Your task to perform on an android device: clear all cookies in the chrome app Image 0: 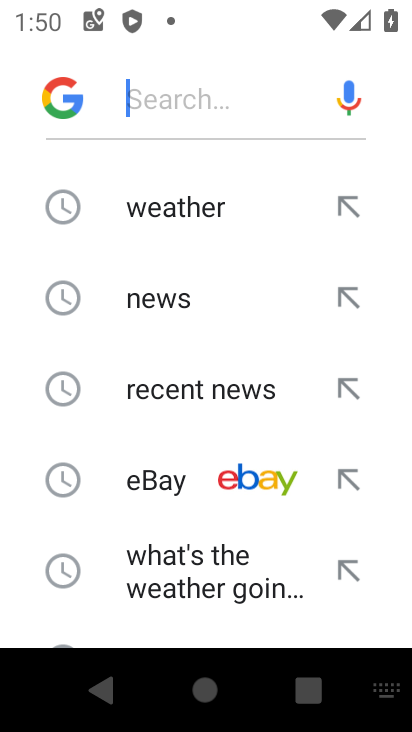
Step 0: press home button
Your task to perform on an android device: clear all cookies in the chrome app Image 1: 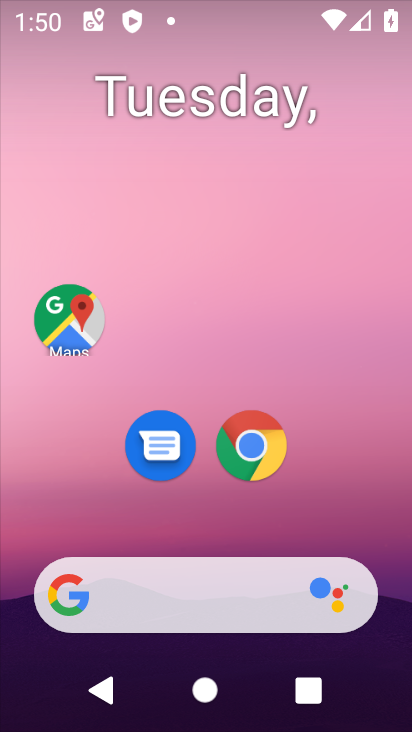
Step 1: drag from (303, 331) to (241, 11)
Your task to perform on an android device: clear all cookies in the chrome app Image 2: 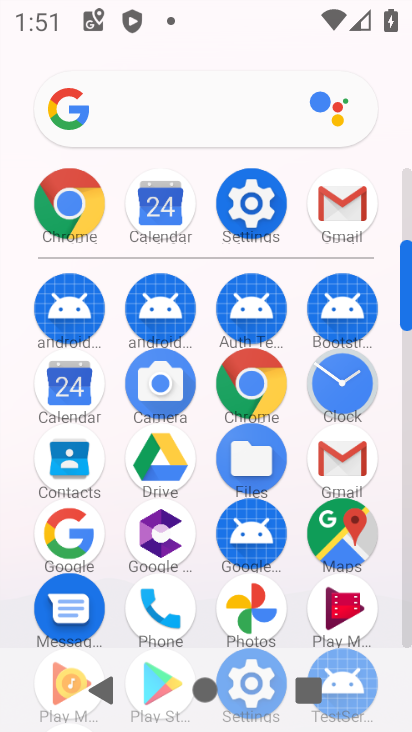
Step 2: click (90, 214)
Your task to perform on an android device: clear all cookies in the chrome app Image 3: 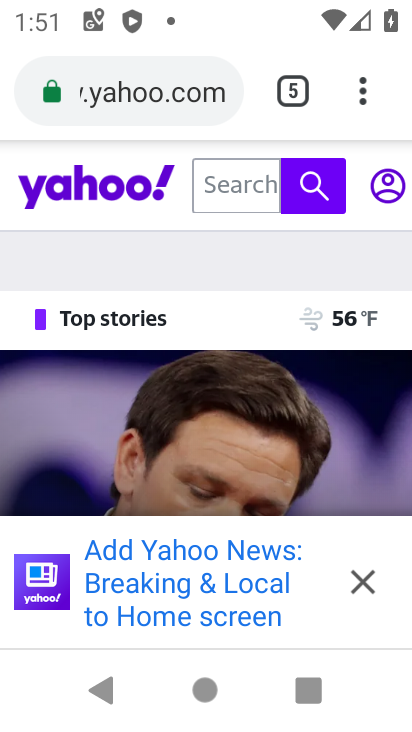
Step 3: drag from (374, 103) to (139, 465)
Your task to perform on an android device: clear all cookies in the chrome app Image 4: 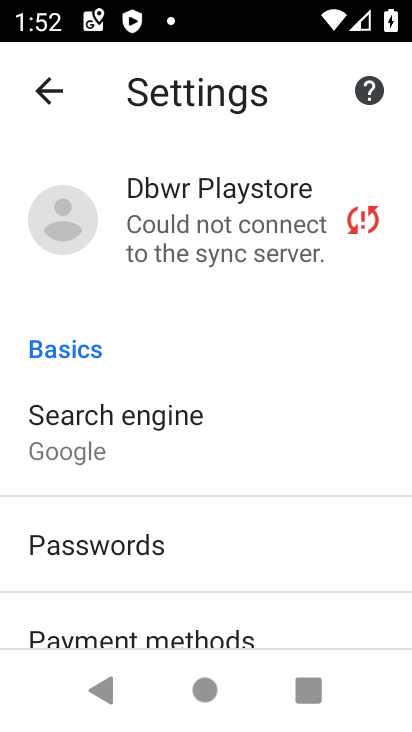
Step 4: drag from (165, 571) to (65, 216)
Your task to perform on an android device: clear all cookies in the chrome app Image 5: 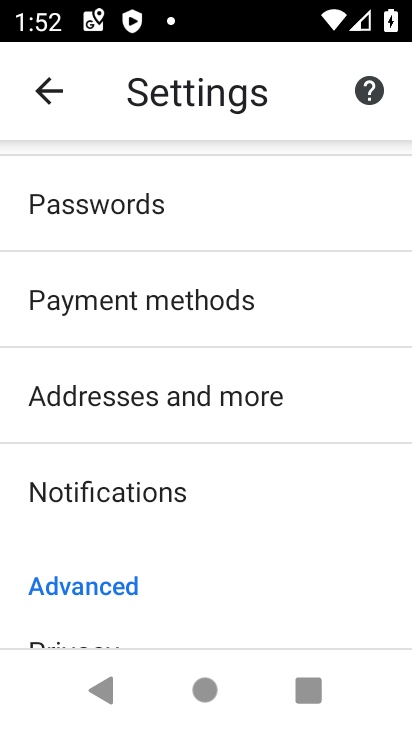
Step 5: drag from (281, 586) to (191, 221)
Your task to perform on an android device: clear all cookies in the chrome app Image 6: 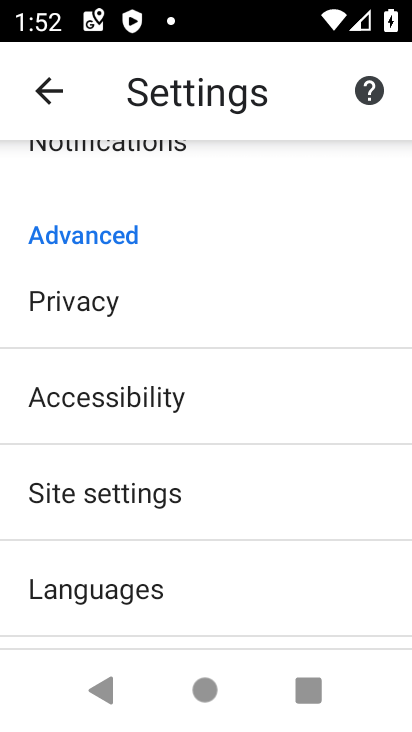
Step 6: drag from (98, 277) to (201, 649)
Your task to perform on an android device: clear all cookies in the chrome app Image 7: 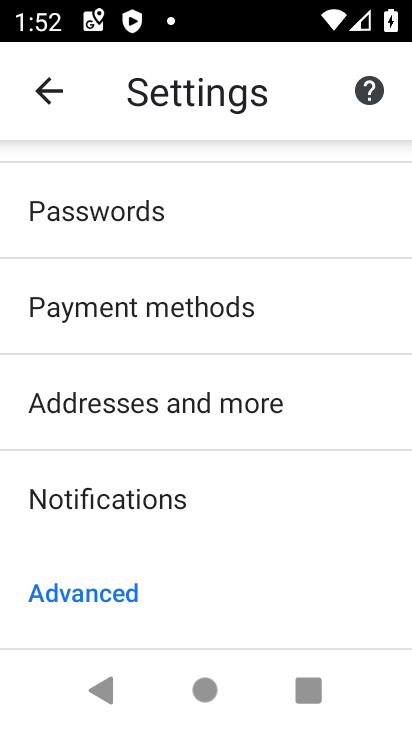
Step 7: drag from (101, 326) to (216, 651)
Your task to perform on an android device: clear all cookies in the chrome app Image 8: 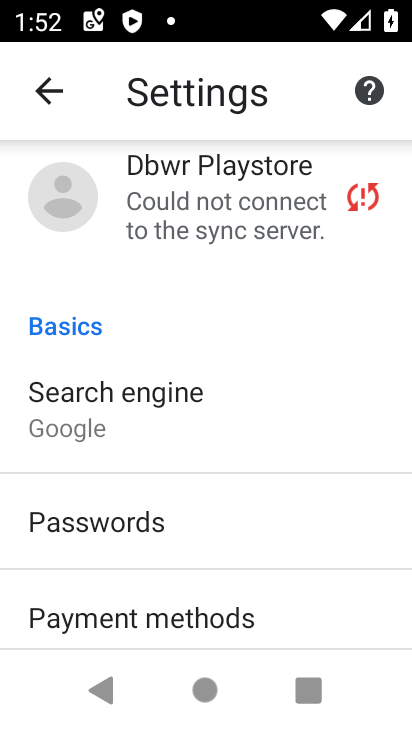
Step 8: click (74, 98)
Your task to perform on an android device: clear all cookies in the chrome app Image 9: 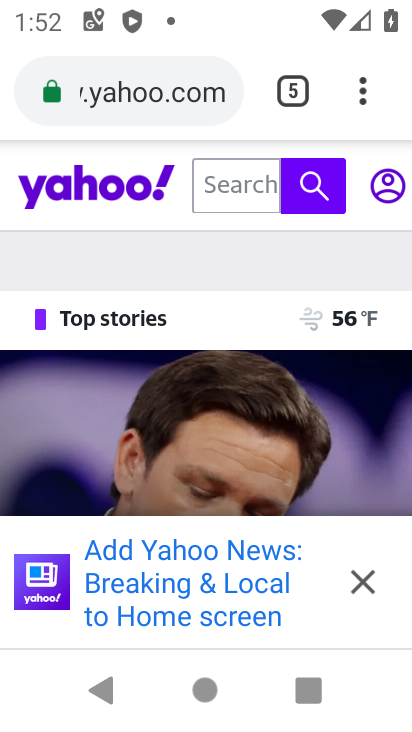
Step 9: drag from (379, 94) to (122, 496)
Your task to perform on an android device: clear all cookies in the chrome app Image 10: 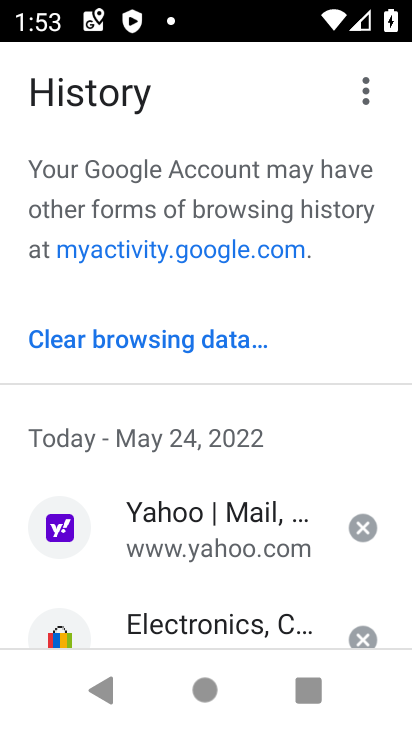
Step 10: click (192, 340)
Your task to perform on an android device: clear all cookies in the chrome app Image 11: 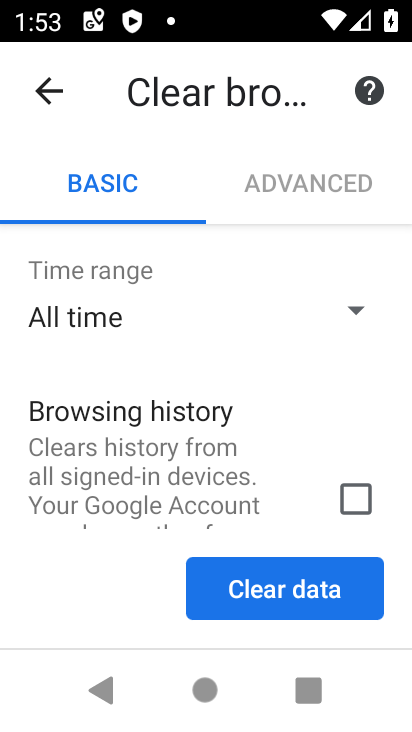
Step 11: click (261, 585)
Your task to perform on an android device: clear all cookies in the chrome app Image 12: 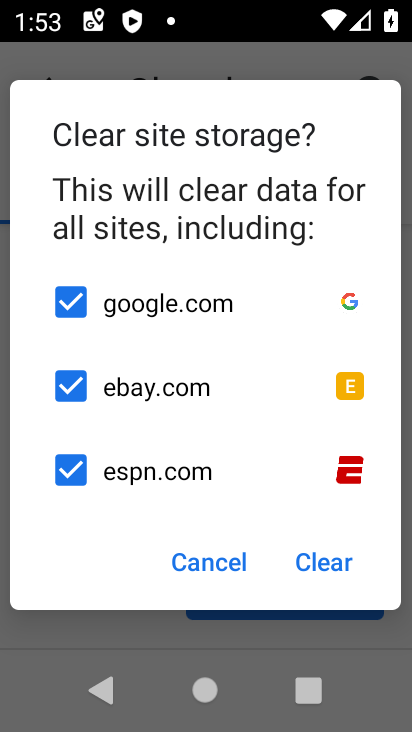
Step 12: click (337, 572)
Your task to perform on an android device: clear all cookies in the chrome app Image 13: 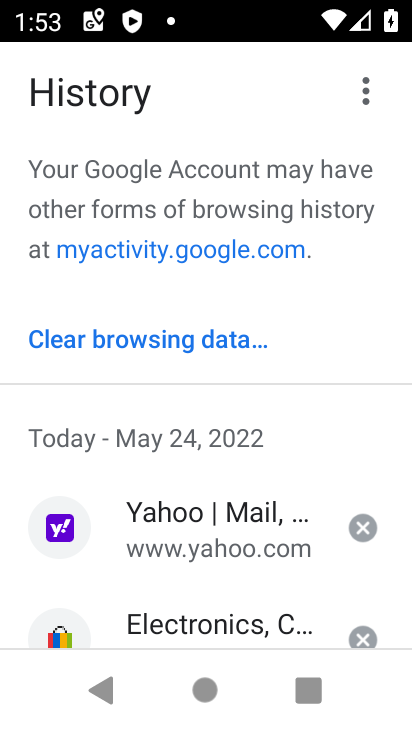
Step 13: click (236, 340)
Your task to perform on an android device: clear all cookies in the chrome app Image 14: 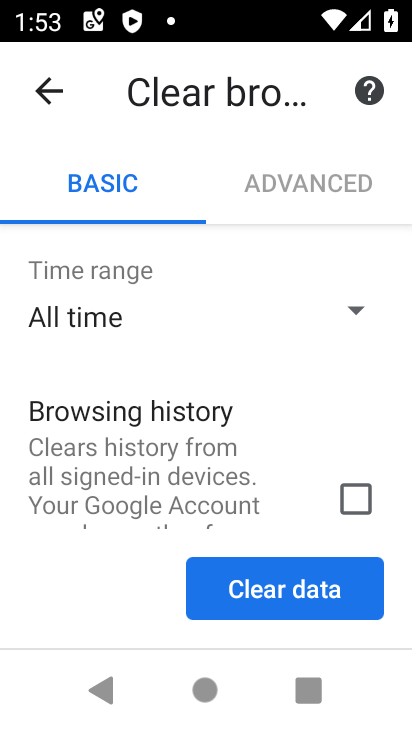
Step 14: click (355, 610)
Your task to perform on an android device: clear all cookies in the chrome app Image 15: 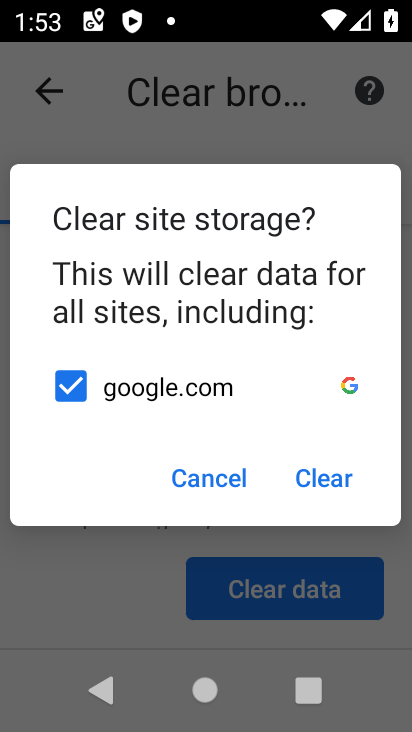
Step 15: click (346, 477)
Your task to perform on an android device: clear all cookies in the chrome app Image 16: 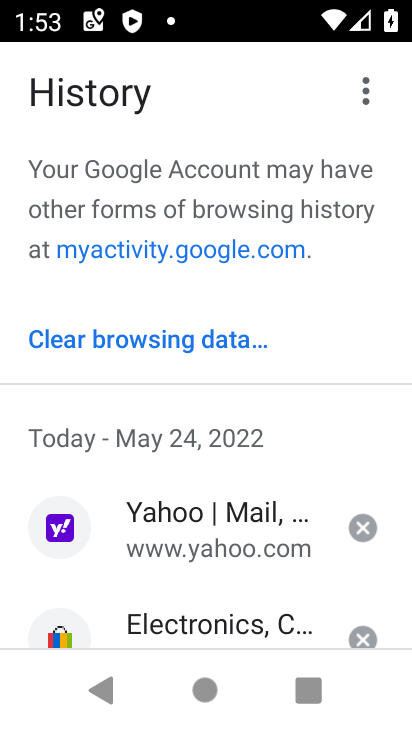
Step 16: click (129, 339)
Your task to perform on an android device: clear all cookies in the chrome app Image 17: 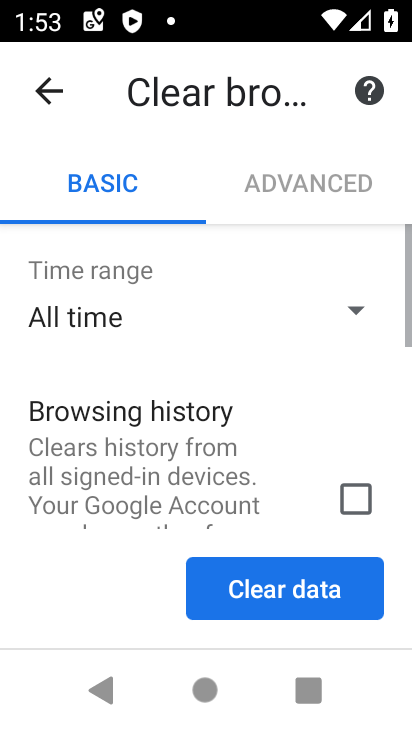
Step 17: click (341, 592)
Your task to perform on an android device: clear all cookies in the chrome app Image 18: 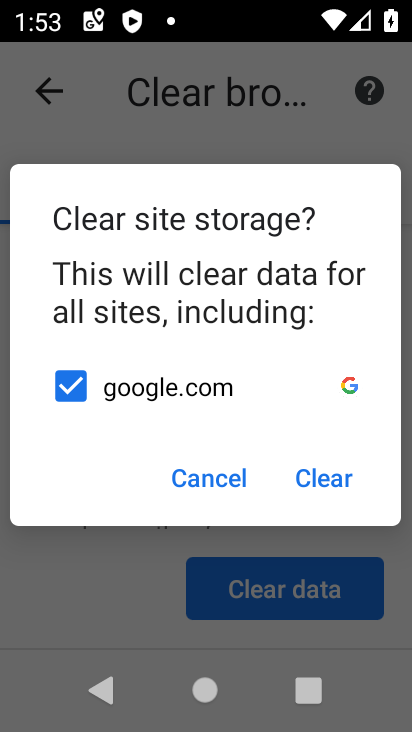
Step 18: click (342, 480)
Your task to perform on an android device: clear all cookies in the chrome app Image 19: 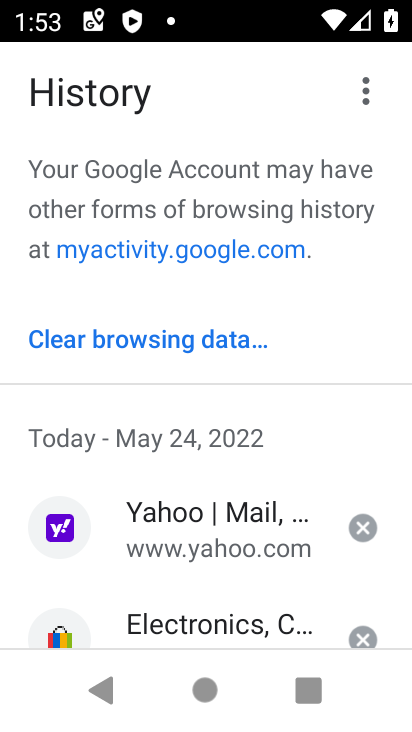
Step 19: task complete